Your task to perform on an android device: Go to privacy settings Image 0: 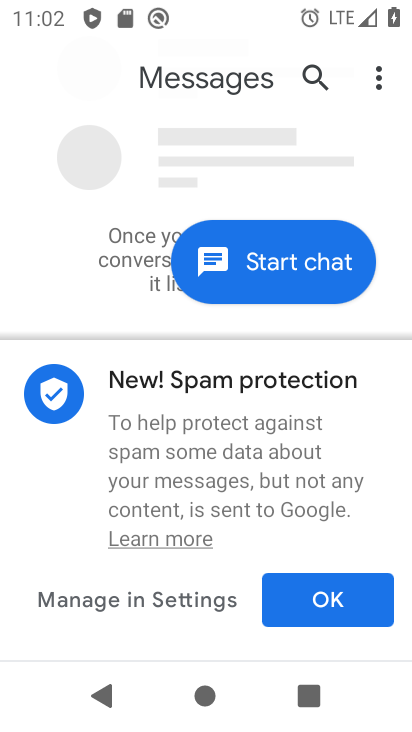
Step 0: press home button
Your task to perform on an android device: Go to privacy settings Image 1: 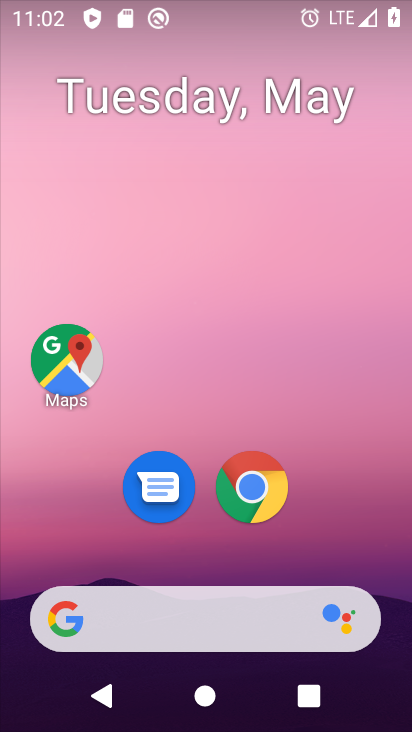
Step 1: drag from (211, 568) to (260, 145)
Your task to perform on an android device: Go to privacy settings Image 2: 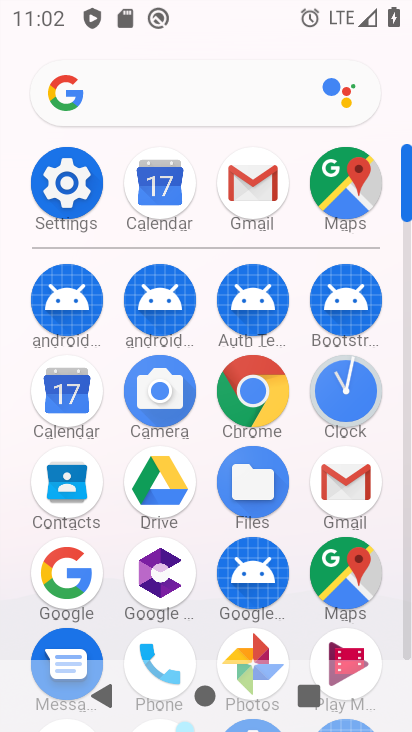
Step 2: click (62, 199)
Your task to perform on an android device: Go to privacy settings Image 3: 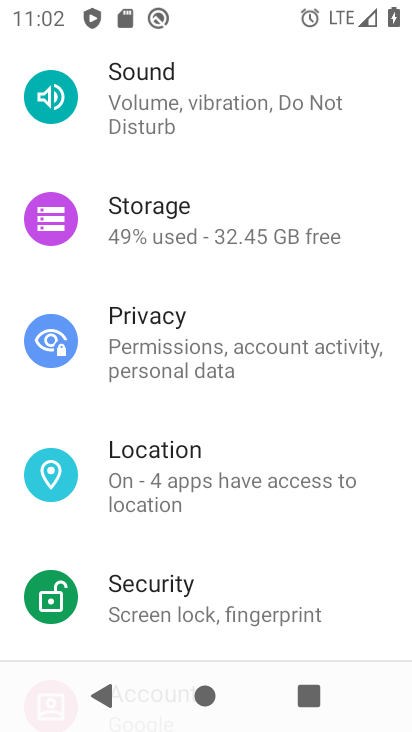
Step 3: click (176, 322)
Your task to perform on an android device: Go to privacy settings Image 4: 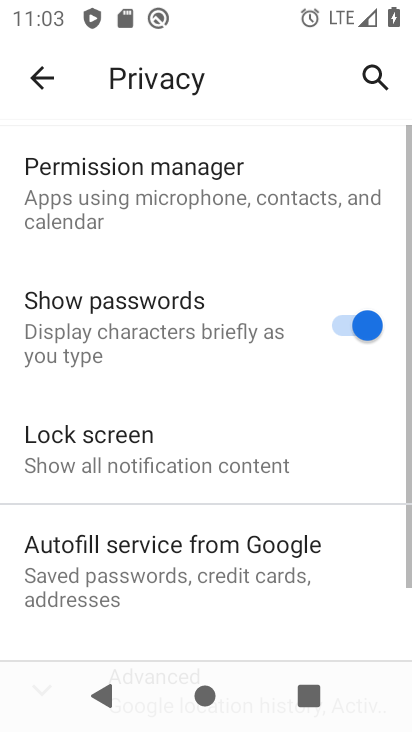
Step 4: task complete